Your task to perform on an android device: Open location settings Image 0: 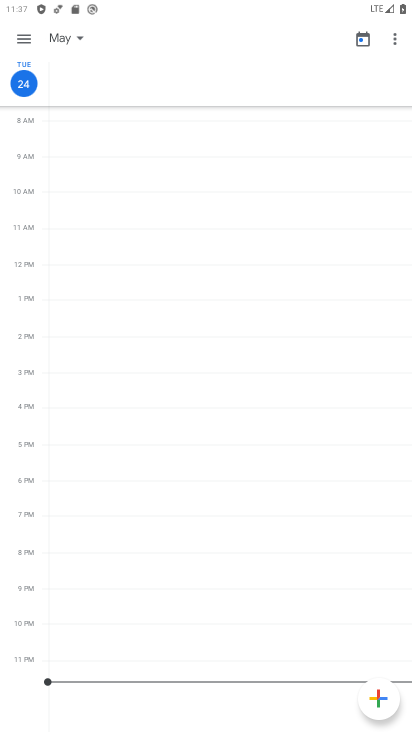
Step 0: press home button
Your task to perform on an android device: Open location settings Image 1: 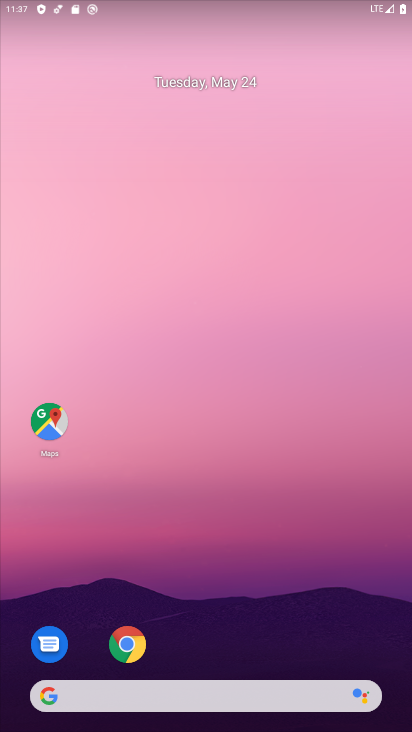
Step 1: drag from (209, 579) to (220, 18)
Your task to perform on an android device: Open location settings Image 2: 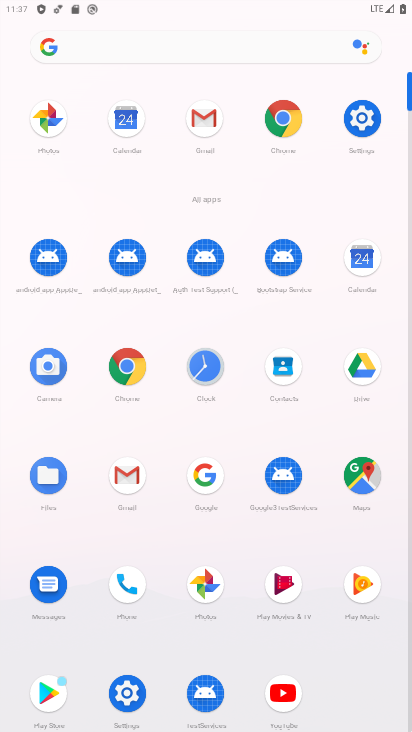
Step 2: click (364, 114)
Your task to perform on an android device: Open location settings Image 3: 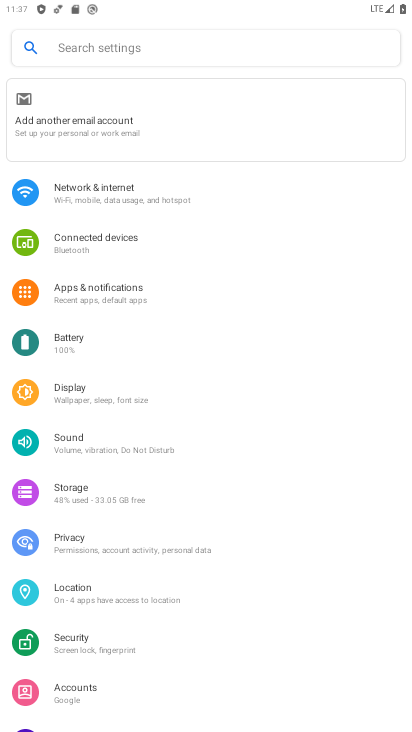
Step 3: click (71, 587)
Your task to perform on an android device: Open location settings Image 4: 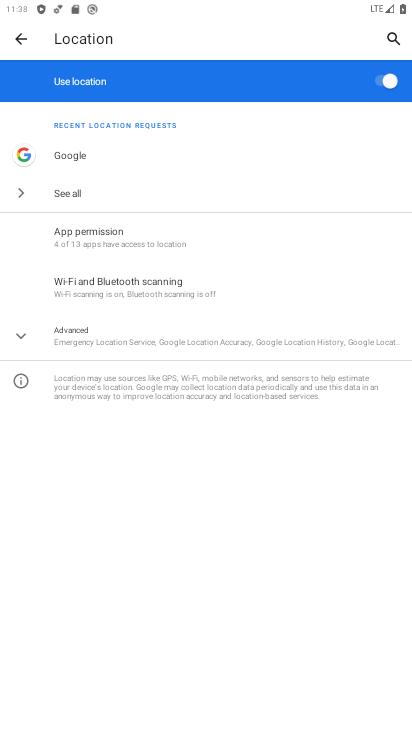
Step 4: task complete